Your task to perform on an android device: Go to Amazon Image 0: 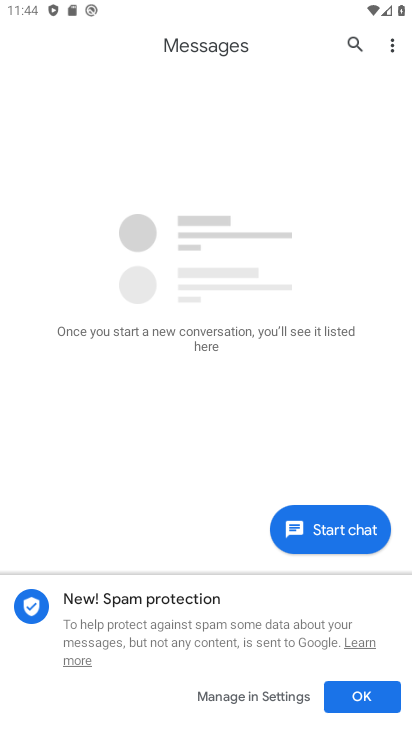
Step 0: press home button
Your task to perform on an android device: Go to Amazon Image 1: 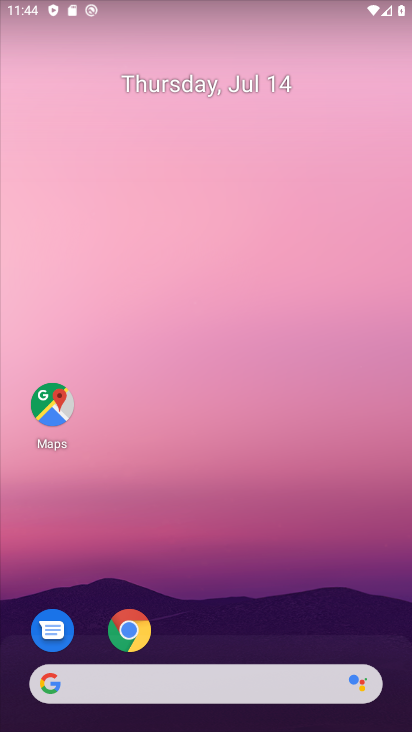
Step 1: drag from (322, 602) to (354, 76)
Your task to perform on an android device: Go to Amazon Image 2: 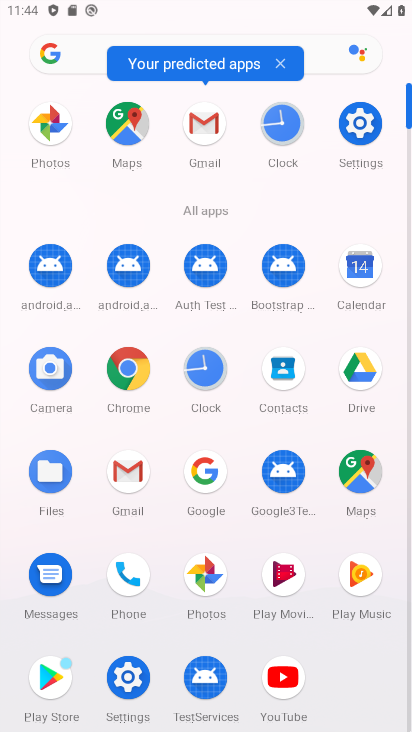
Step 2: click (132, 369)
Your task to perform on an android device: Go to Amazon Image 3: 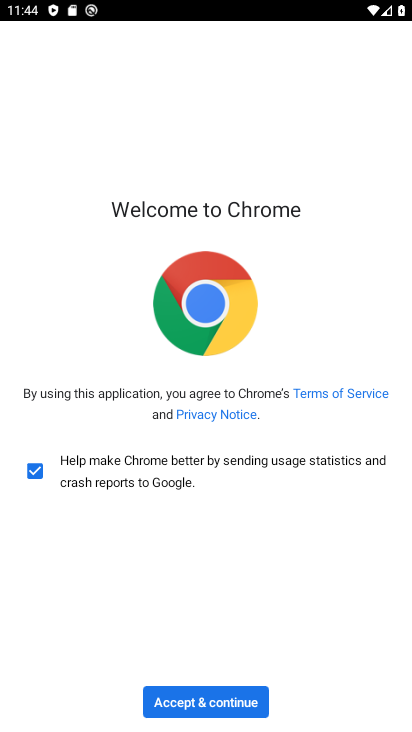
Step 3: click (255, 697)
Your task to perform on an android device: Go to Amazon Image 4: 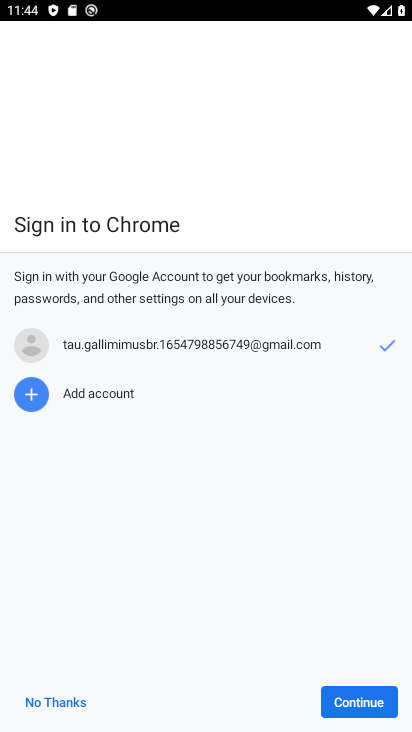
Step 4: click (381, 699)
Your task to perform on an android device: Go to Amazon Image 5: 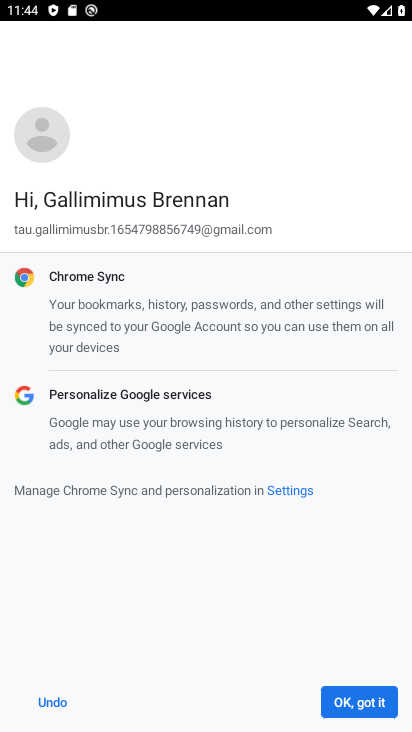
Step 5: click (390, 705)
Your task to perform on an android device: Go to Amazon Image 6: 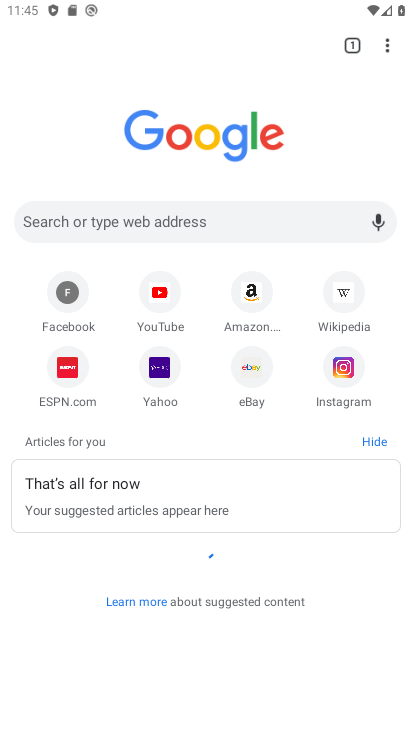
Step 6: click (204, 231)
Your task to perform on an android device: Go to Amazon Image 7: 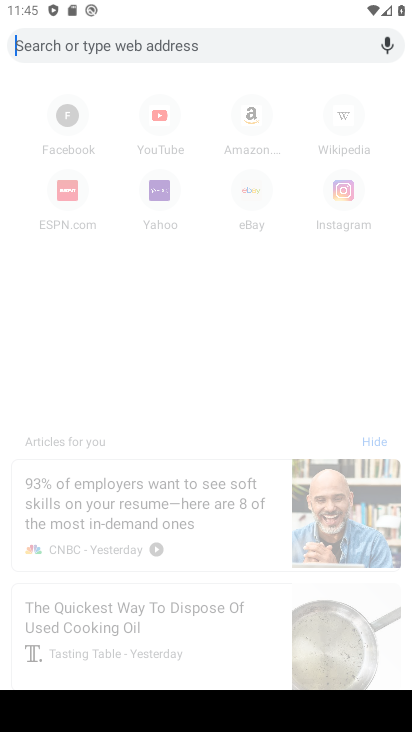
Step 7: type "amazon"
Your task to perform on an android device: Go to Amazon Image 8: 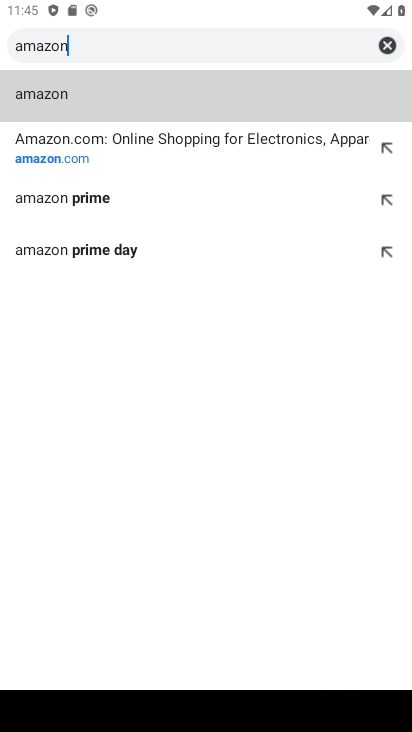
Step 8: click (243, 92)
Your task to perform on an android device: Go to Amazon Image 9: 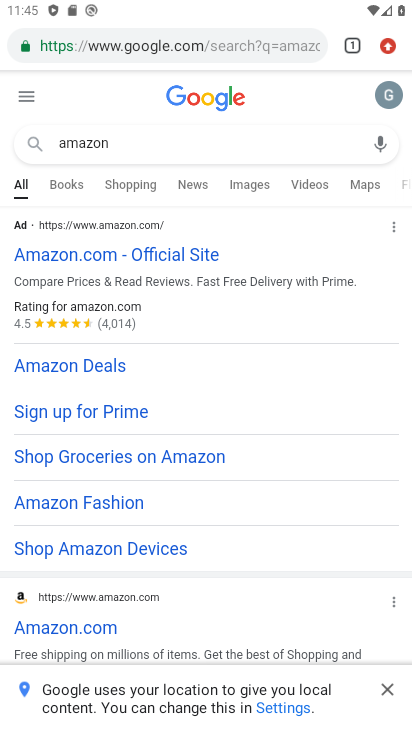
Step 9: task complete